Your task to perform on an android device: Open Yahoo.com Image 0: 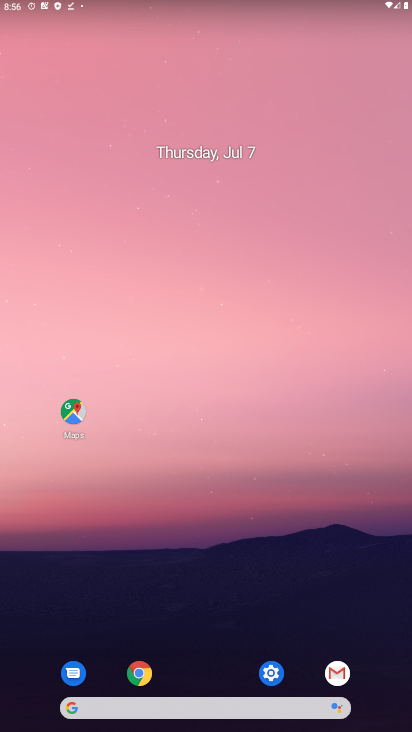
Step 0: click (138, 665)
Your task to perform on an android device: Open Yahoo.com Image 1: 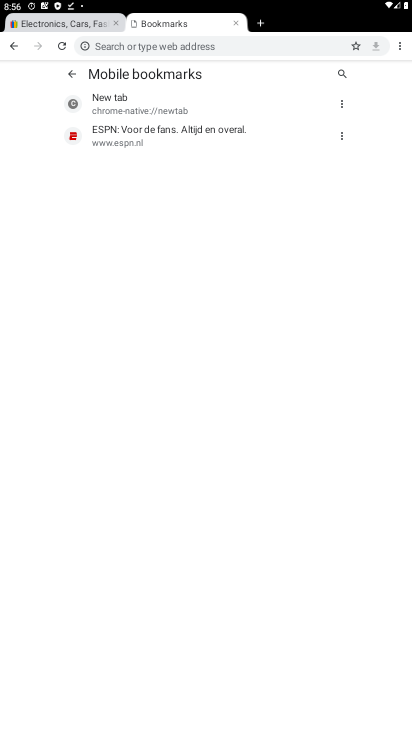
Step 1: click (399, 45)
Your task to perform on an android device: Open Yahoo.com Image 2: 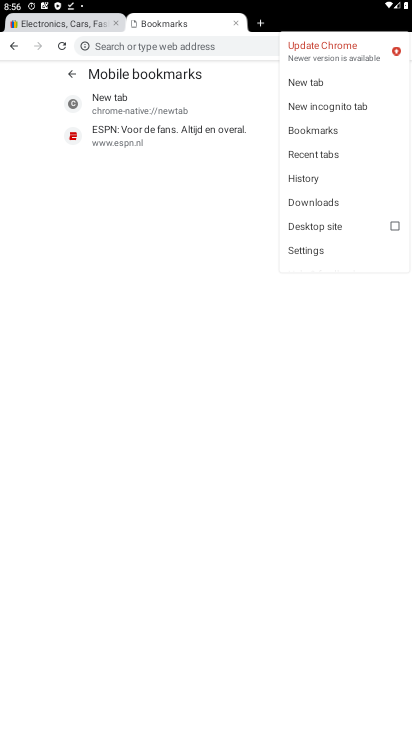
Step 2: click (305, 79)
Your task to perform on an android device: Open Yahoo.com Image 3: 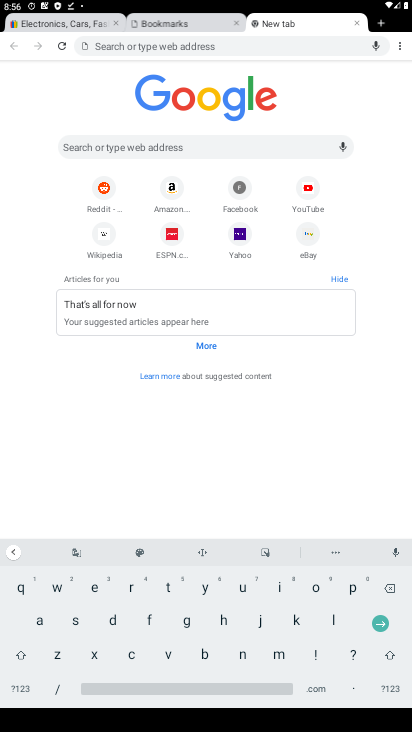
Step 3: click (239, 236)
Your task to perform on an android device: Open Yahoo.com Image 4: 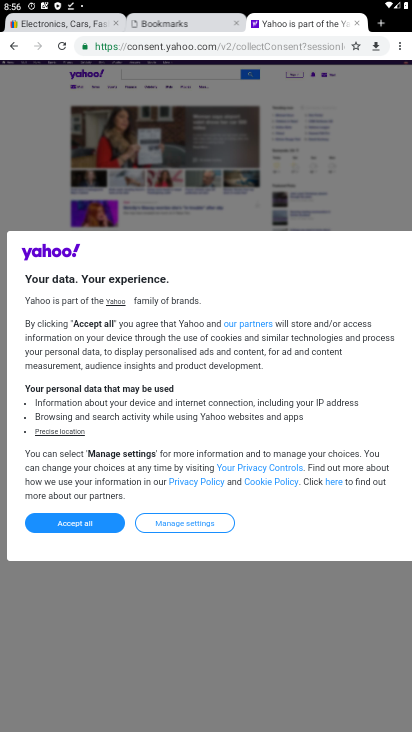
Step 4: click (59, 523)
Your task to perform on an android device: Open Yahoo.com Image 5: 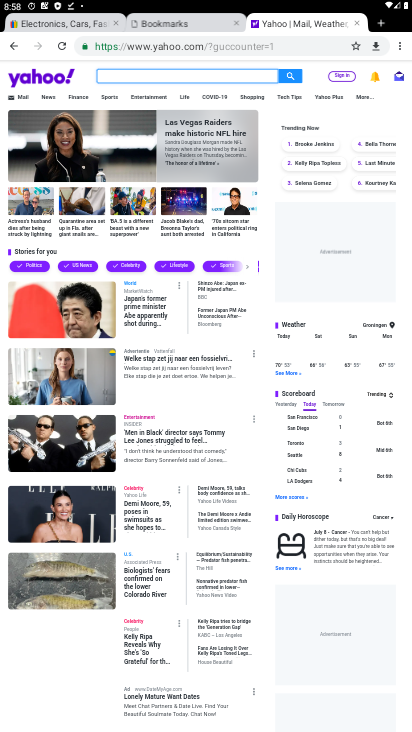
Step 5: task complete